Your task to perform on an android device: clear all cookies in the chrome app Image 0: 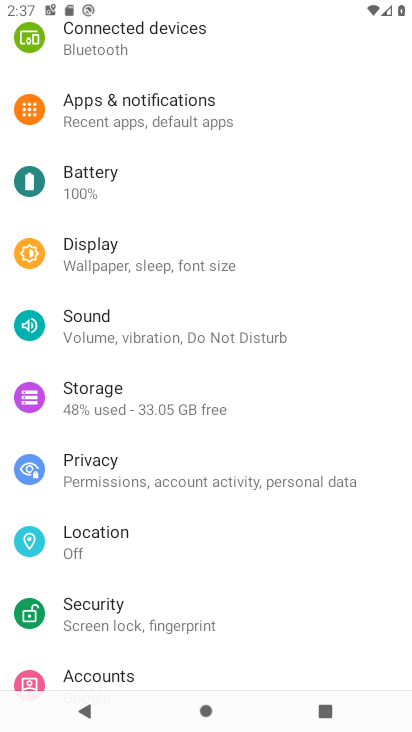
Step 0: drag from (246, 525) to (330, 119)
Your task to perform on an android device: clear all cookies in the chrome app Image 1: 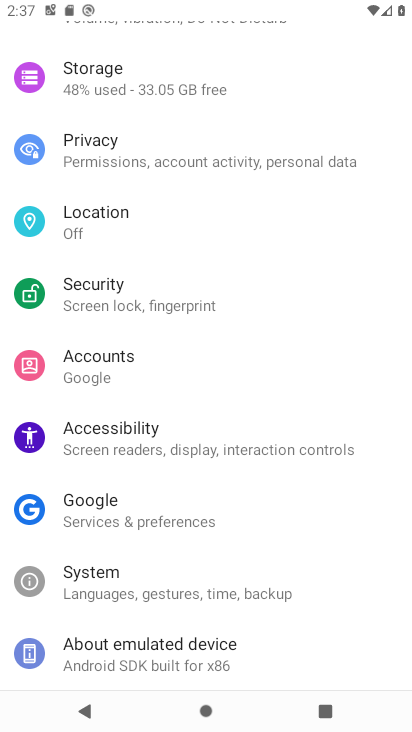
Step 1: press home button
Your task to perform on an android device: clear all cookies in the chrome app Image 2: 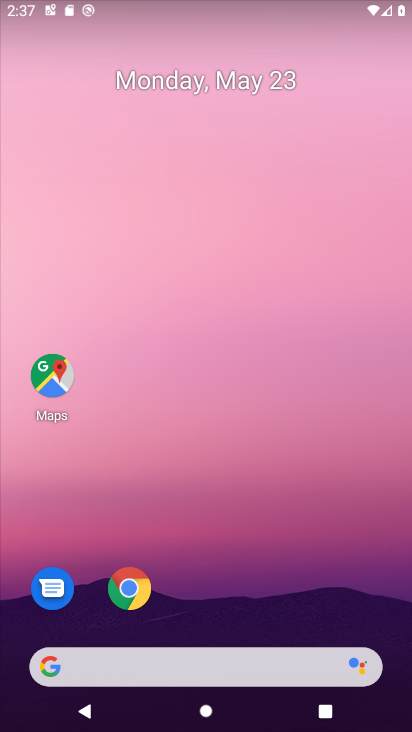
Step 2: drag from (226, 625) to (213, 192)
Your task to perform on an android device: clear all cookies in the chrome app Image 3: 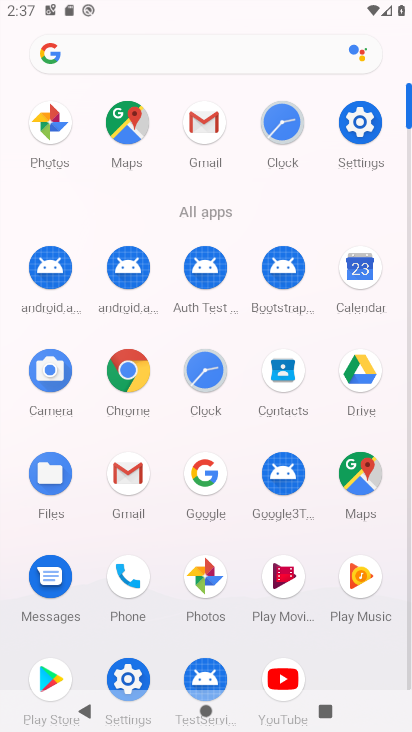
Step 3: click (129, 368)
Your task to perform on an android device: clear all cookies in the chrome app Image 4: 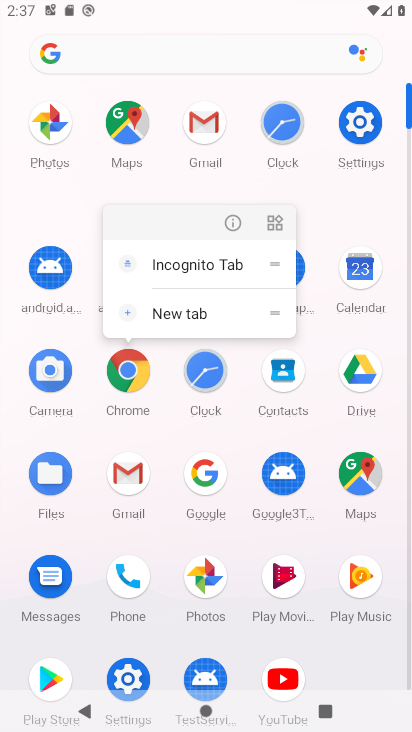
Step 4: click (233, 228)
Your task to perform on an android device: clear all cookies in the chrome app Image 5: 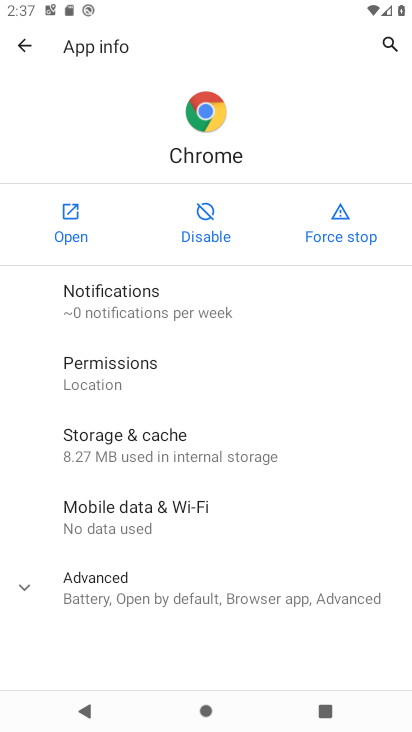
Step 5: click (88, 227)
Your task to perform on an android device: clear all cookies in the chrome app Image 6: 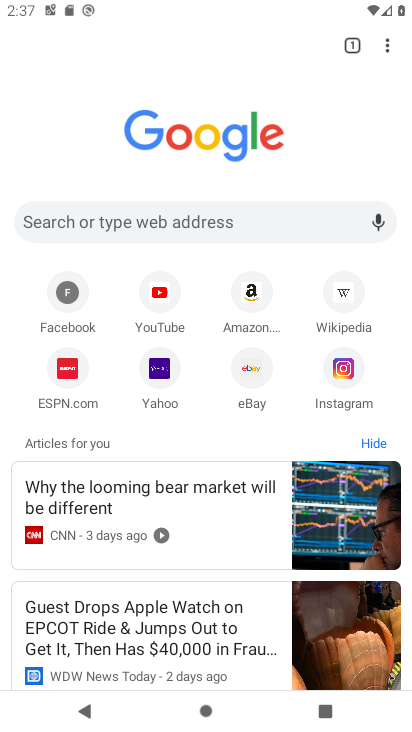
Step 6: click (385, 42)
Your task to perform on an android device: clear all cookies in the chrome app Image 7: 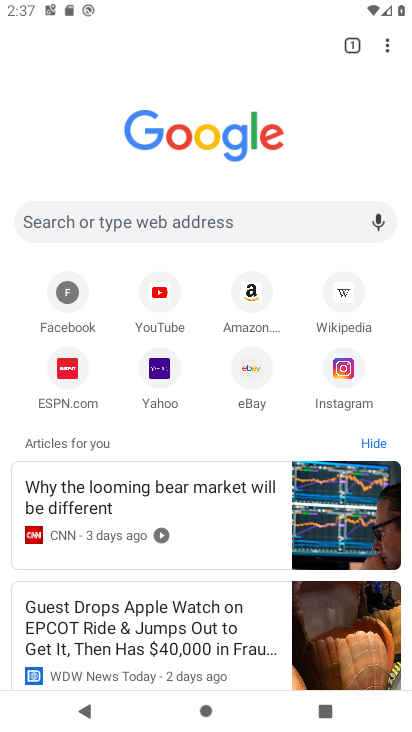
Step 7: click (394, 38)
Your task to perform on an android device: clear all cookies in the chrome app Image 8: 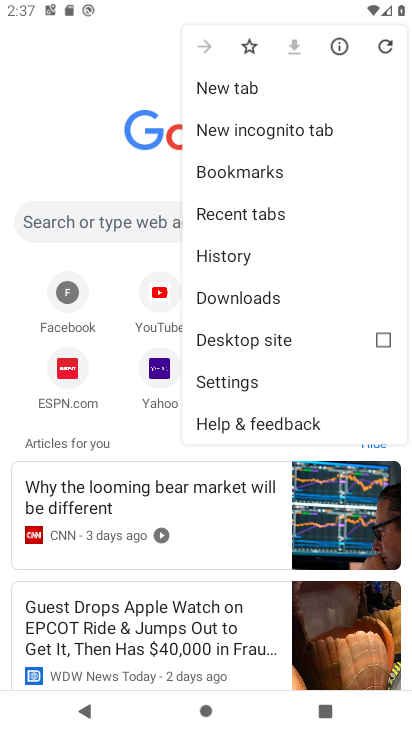
Step 8: click (258, 383)
Your task to perform on an android device: clear all cookies in the chrome app Image 9: 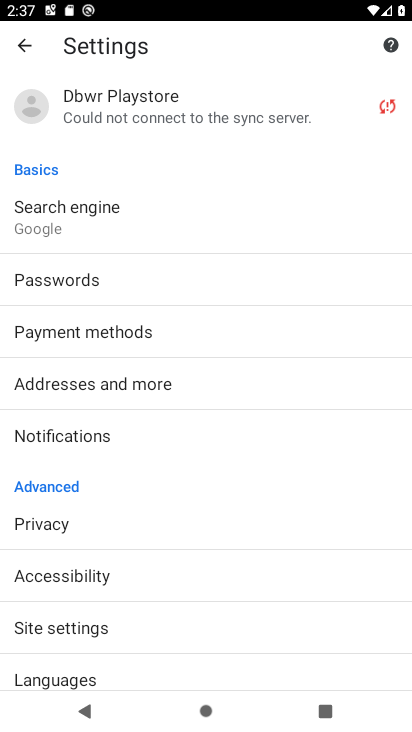
Step 9: click (16, 51)
Your task to perform on an android device: clear all cookies in the chrome app Image 10: 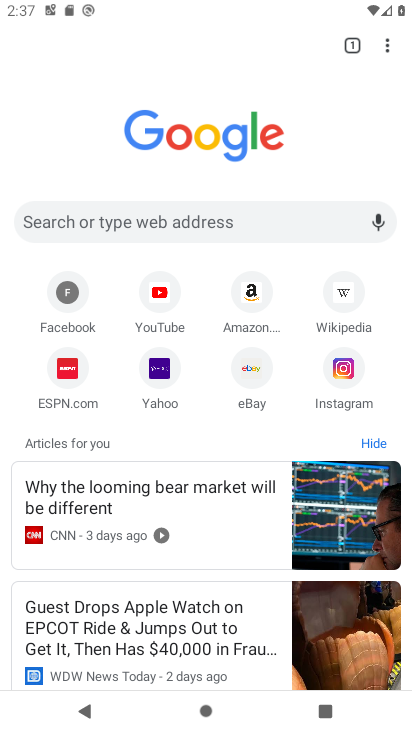
Step 10: click (382, 46)
Your task to perform on an android device: clear all cookies in the chrome app Image 11: 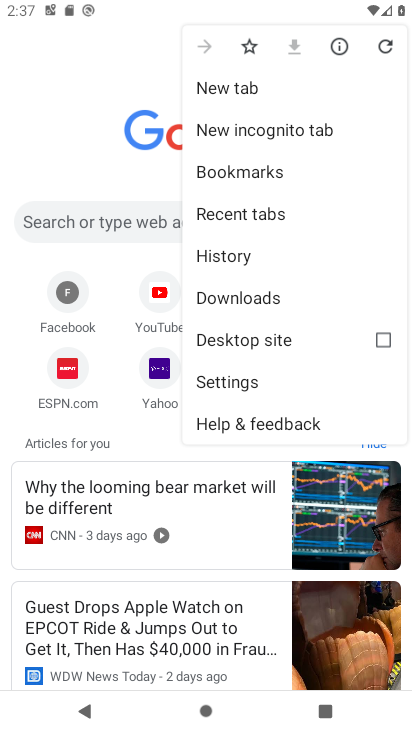
Step 11: click (247, 248)
Your task to perform on an android device: clear all cookies in the chrome app Image 12: 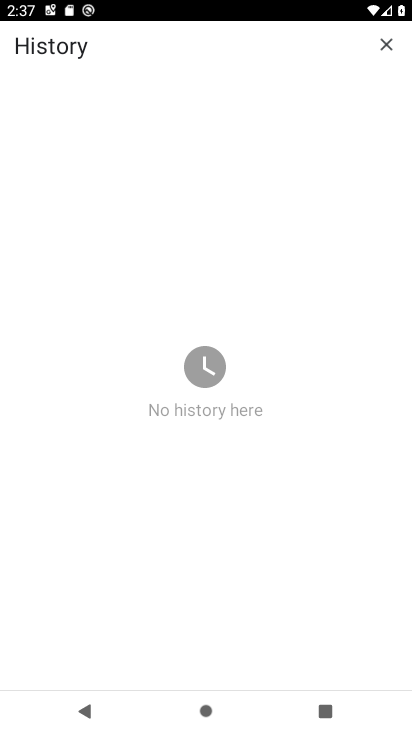
Step 12: task complete